Your task to perform on an android device: Go to Amazon Image 0: 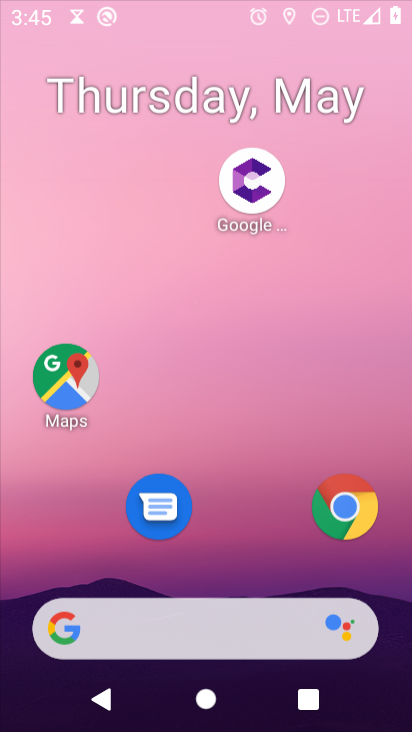
Step 0: press home button
Your task to perform on an android device: Go to Amazon Image 1: 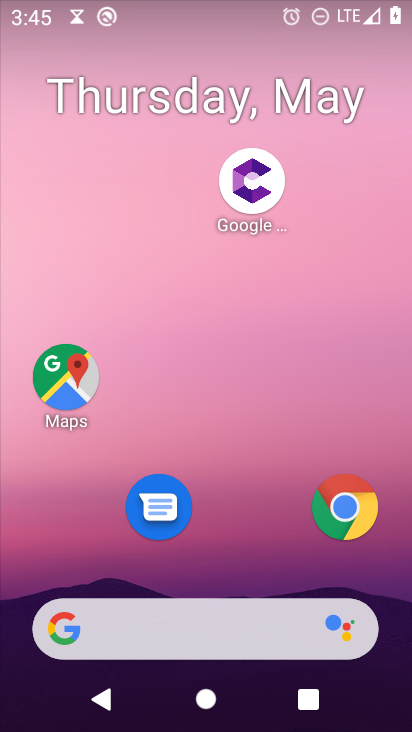
Step 1: click (48, 628)
Your task to perform on an android device: Go to Amazon Image 2: 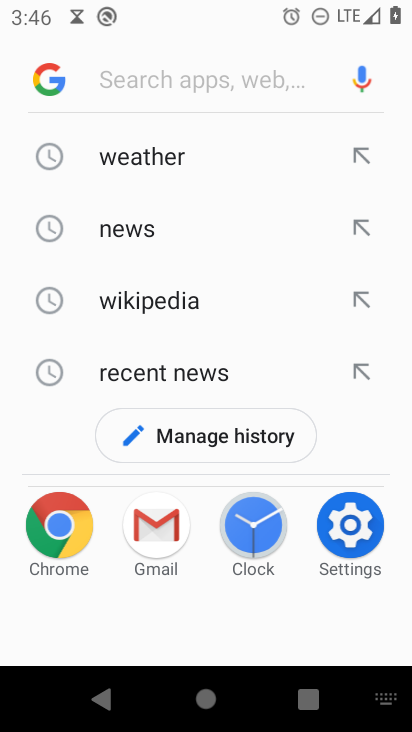
Step 2: type "Amazon"
Your task to perform on an android device: Go to Amazon Image 3: 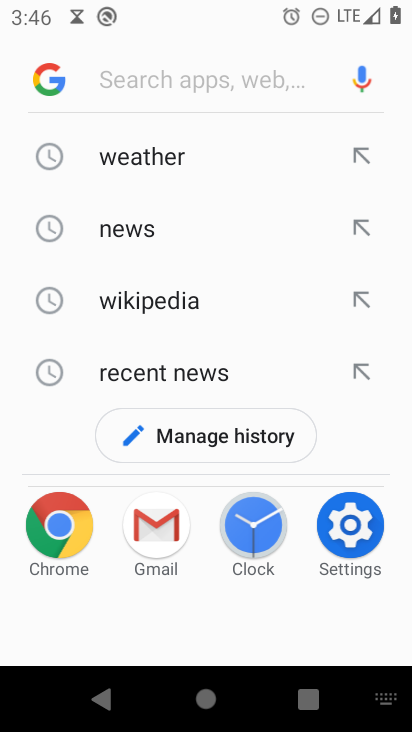
Step 3: click (204, 82)
Your task to perform on an android device: Go to Amazon Image 4: 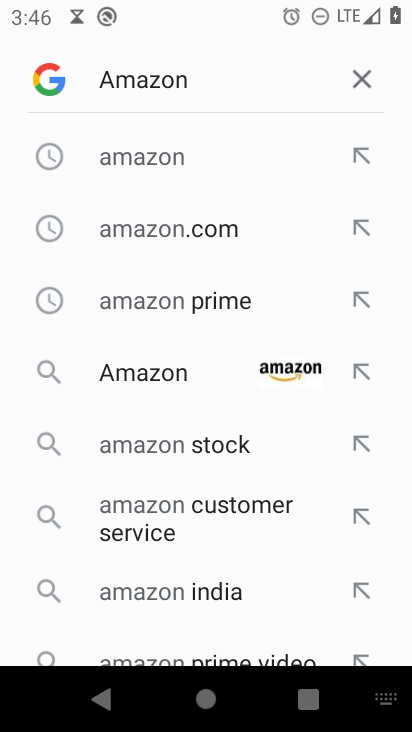
Step 4: click (130, 161)
Your task to perform on an android device: Go to Amazon Image 5: 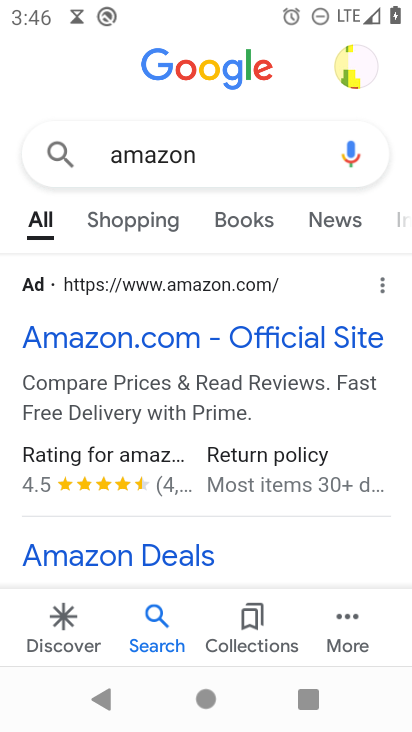
Step 5: click (152, 343)
Your task to perform on an android device: Go to Amazon Image 6: 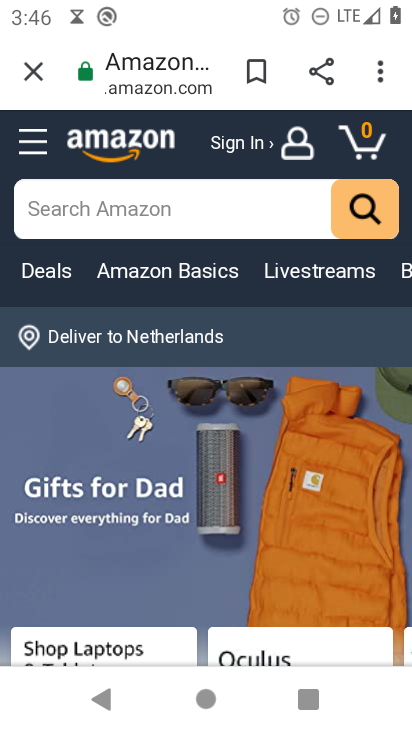
Step 6: task complete